Your task to perform on an android device: Open settings Image 0: 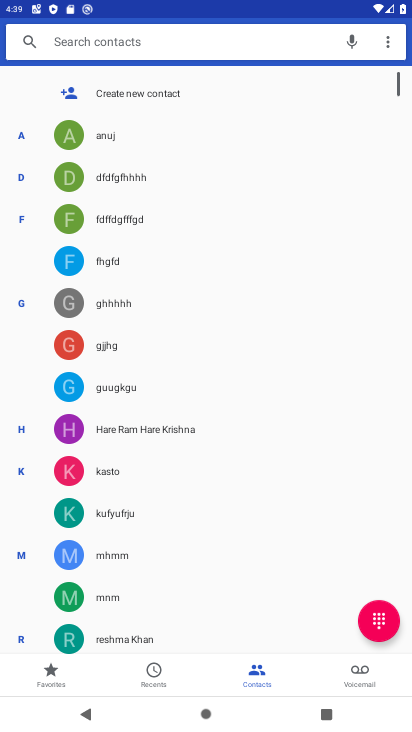
Step 0: press home button
Your task to perform on an android device: Open settings Image 1: 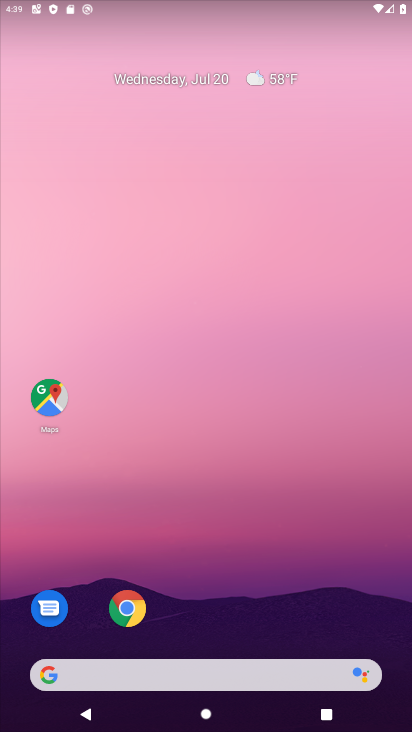
Step 1: drag from (242, 623) to (17, 1)
Your task to perform on an android device: Open settings Image 2: 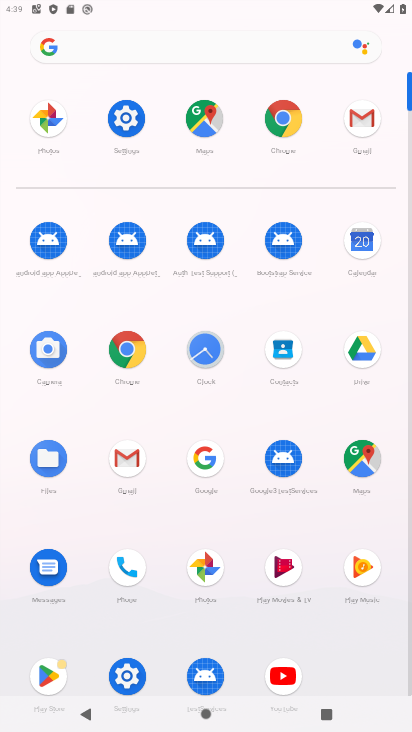
Step 2: click (125, 107)
Your task to perform on an android device: Open settings Image 3: 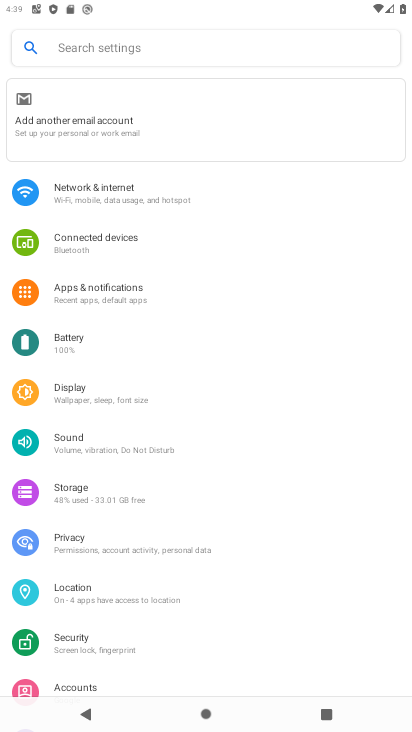
Step 3: task complete